Your task to perform on an android device: visit the assistant section in the google photos Image 0: 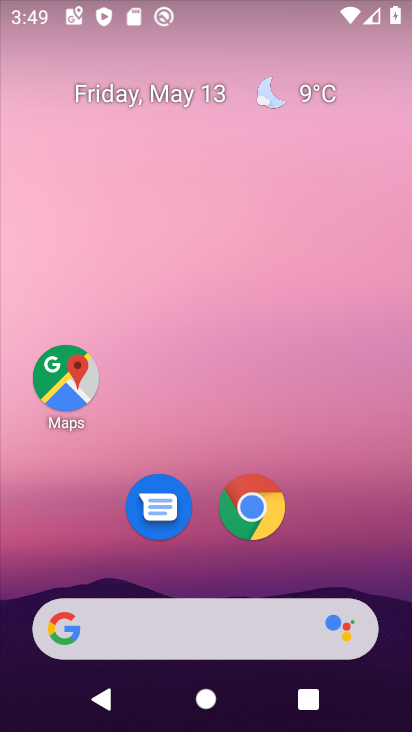
Step 0: drag from (362, 490) to (253, 38)
Your task to perform on an android device: visit the assistant section in the google photos Image 1: 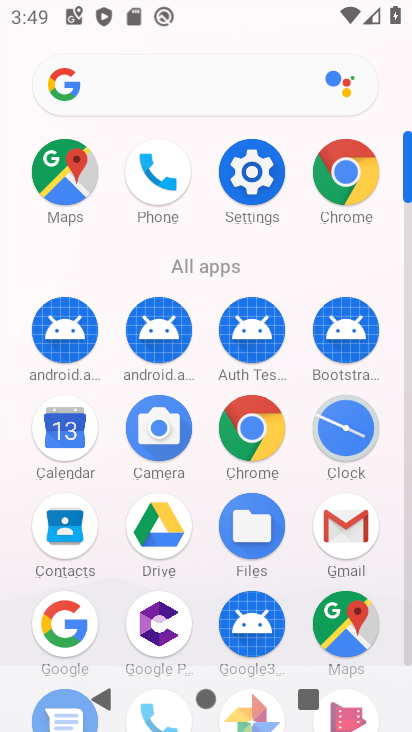
Step 1: drag from (392, 553) to (411, 235)
Your task to perform on an android device: visit the assistant section in the google photos Image 2: 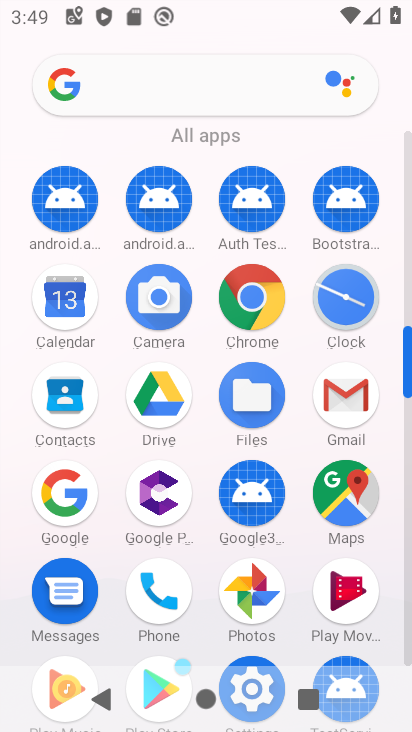
Step 2: click (248, 590)
Your task to perform on an android device: visit the assistant section in the google photos Image 3: 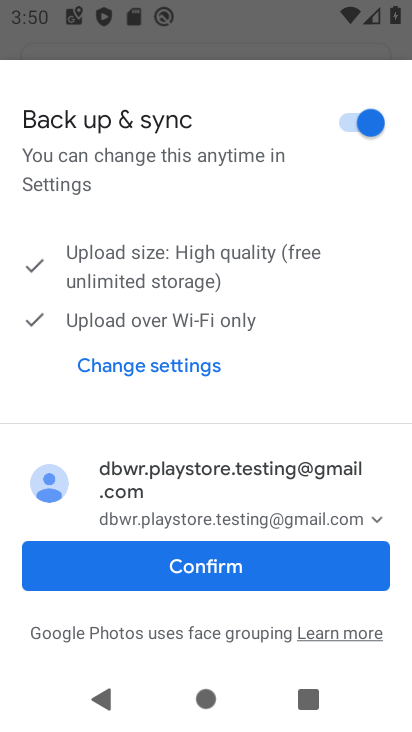
Step 3: click (255, 575)
Your task to perform on an android device: visit the assistant section in the google photos Image 4: 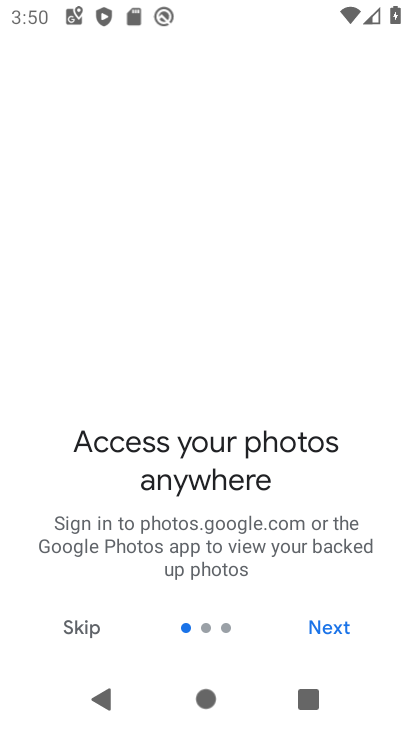
Step 4: click (351, 618)
Your task to perform on an android device: visit the assistant section in the google photos Image 5: 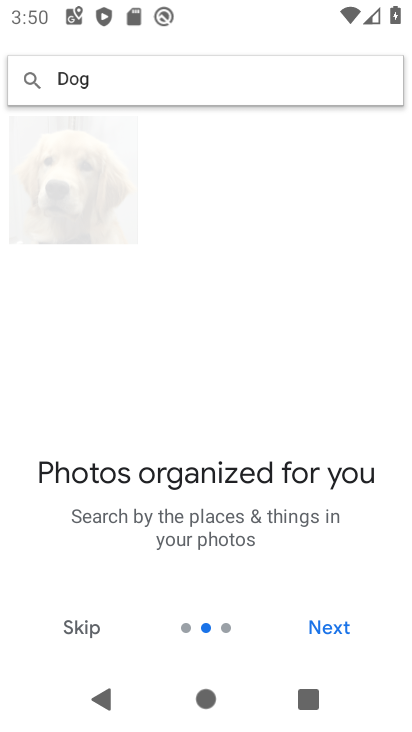
Step 5: click (351, 619)
Your task to perform on an android device: visit the assistant section in the google photos Image 6: 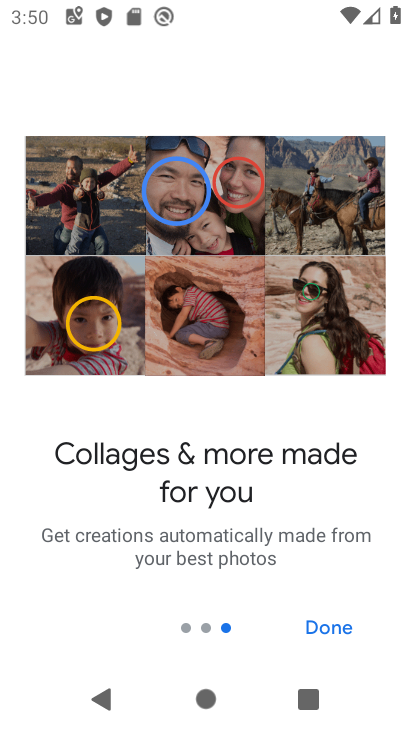
Step 6: click (351, 619)
Your task to perform on an android device: visit the assistant section in the google photos Image 7: 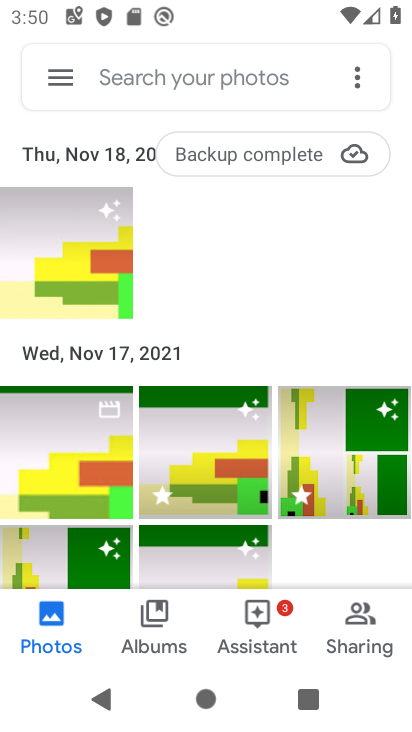
Step 7: click (256, 632)
Your task to perform on an android device: visit the assistant section in the google photos Image 8: 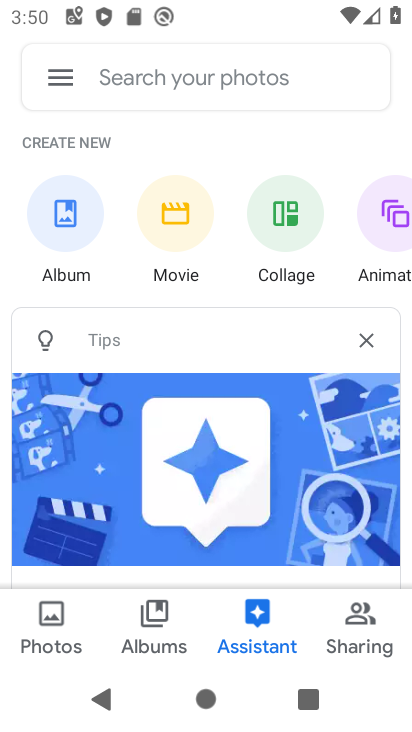
Step 8: task complete